Your task to perform on an android device: Show me productivity apps on the Play Store Image 0: 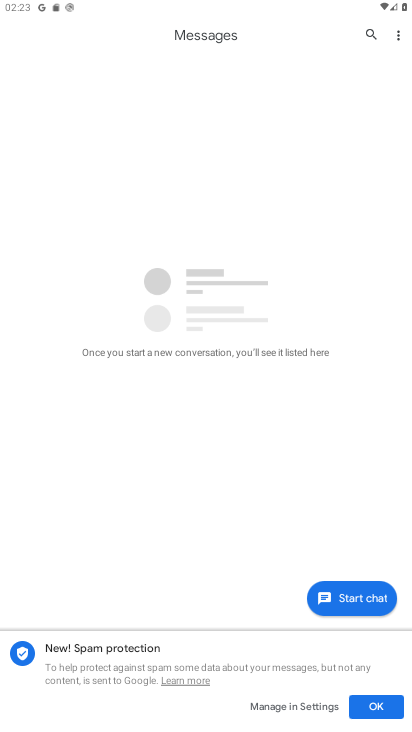
Step 0: press home button
Your task to perform on an android device: Show me productivity apps on the Play Store Image 1: 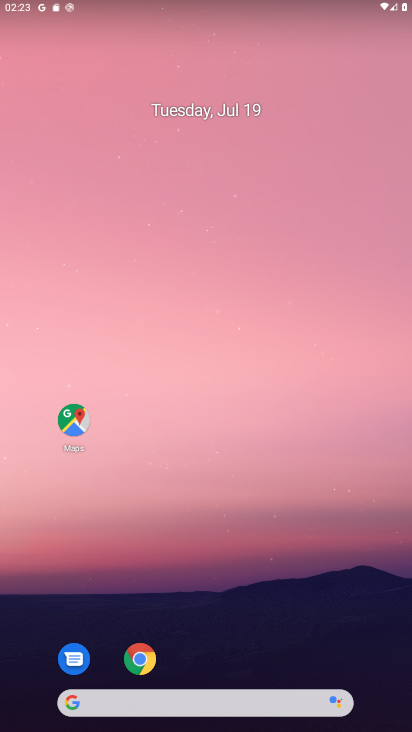
Step 1: drag from (191, 674) to (208, 194)
Your task to perform on an android device: Show me productivity apps on the Play Store Image 2: 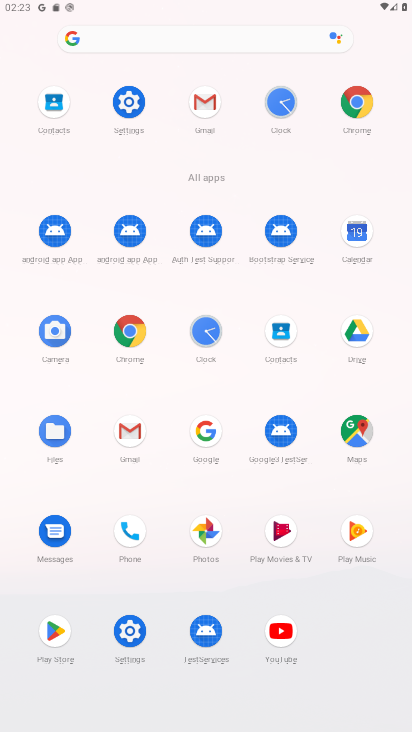
Step 2: click (54, 637)
Your task to perform on an android device: Show me productivity apps on the Play Store Image 3: 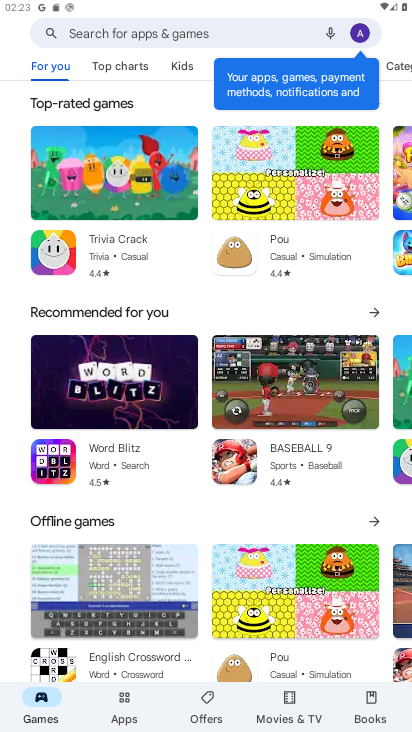
Step 3: click (124, 697)
Your task to perform on an android device: Show me productivity apps on the Play Store Image 4: 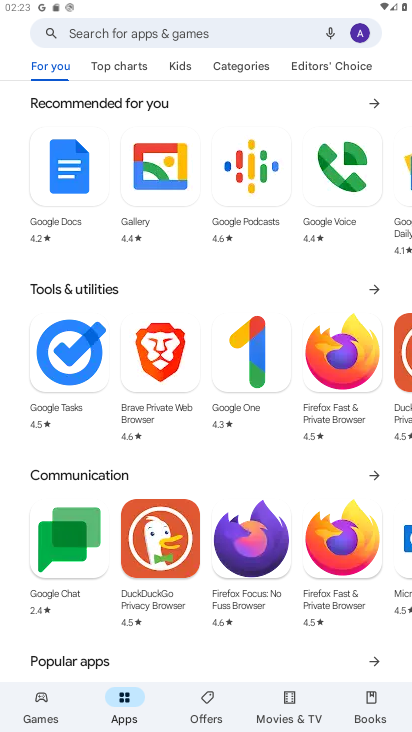
Step 4: task complete